Your task to perform on an android device: Search for the best rated running shoes on Nike.com Image 0: 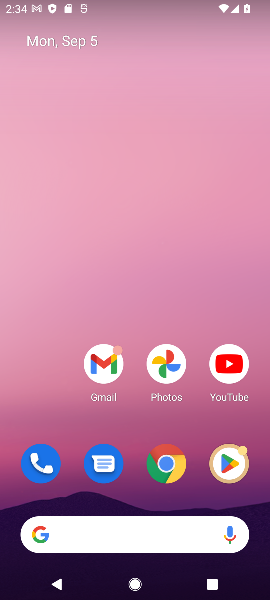
Step 0: drag from (116, 455) to (159, 104)
Your task to perform on an android device: Search for the best rated running shoes on Nike.com Image 1: 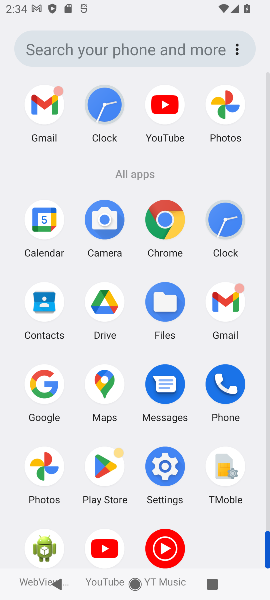
Step 1: click (37, 377)
Your task to perform on an android device: Search for the best rated running shoes on Nike.com Image 2: 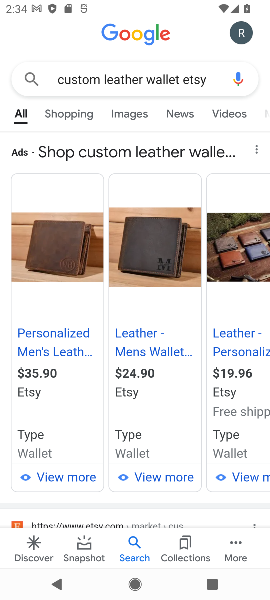
Step 2: click (215, 69)
Your task to perform on an android device: Search for the best rated running shoes on Nike.com Image 3: 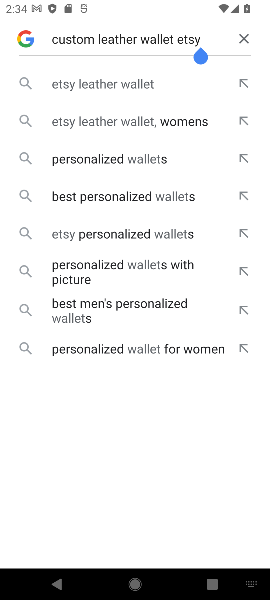
Step 3: click (240, 31)
Your task to perform on an android device: Search for the best rated running shoes on Nike.com Image 4: 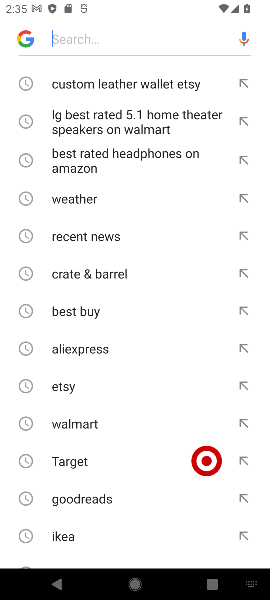
Step 4: click (112, 38)
Your task to perform on an android device: Search for the best rated running shoes on Nike.com Image 5: 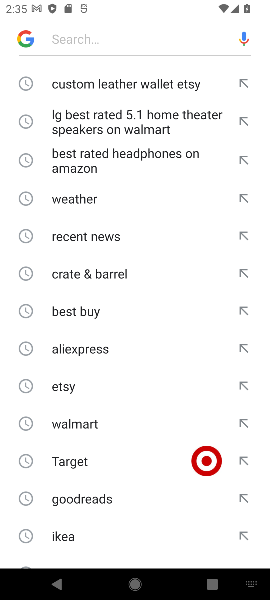
Step 5: type "best rated running shoes on Nike.com "
Your task to perform on an android device: Search for the best rated running shoes on Nike.com Image 6: 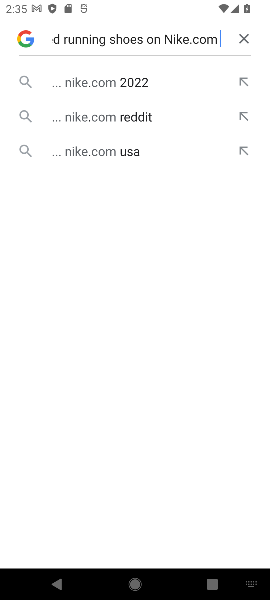
Step 6: click (92, 154)
Your task to perform on an android device: Search for the best rated running shoes on Nike.com Image 7: 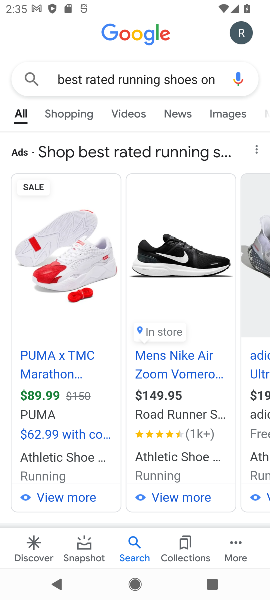
Step 7: drag from (76, 503) to (102, 160)
Your task to perform on an android device: Search for the best rated running shoes on Nike.com Image 8: 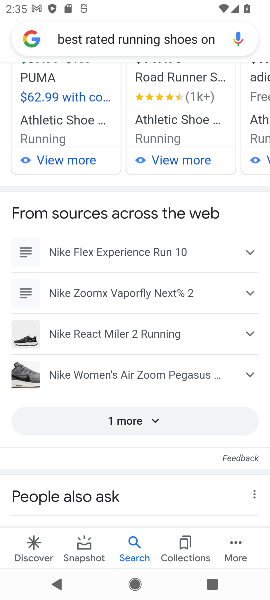
Step 8: drag from (76, 463) to (110, 225)
Your task to perform on an android device: Search for the best rated running shoes on Nike.com Image 9: 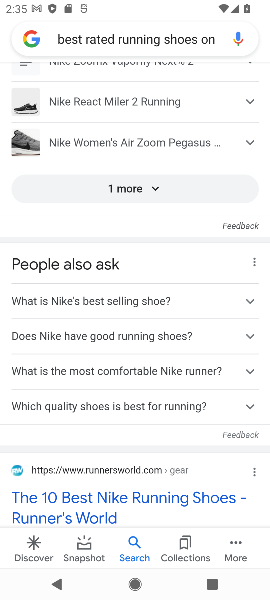
Step 9: drag from (95, 500) to (111, 176)
Your task to perform on an android device: Search for the best rated running shoes on Nike.com Image 10: 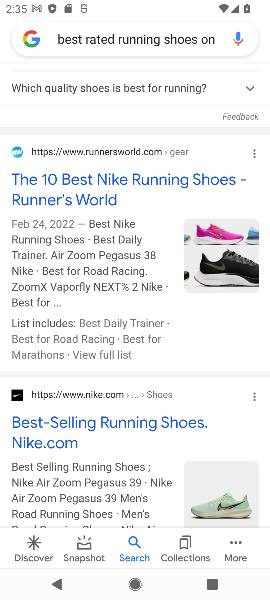
Step 10: drag from (122, 460) to (135, 150)
Your task to perform on an android device: Search for the best rated running shoes on Nike.com Image 11: 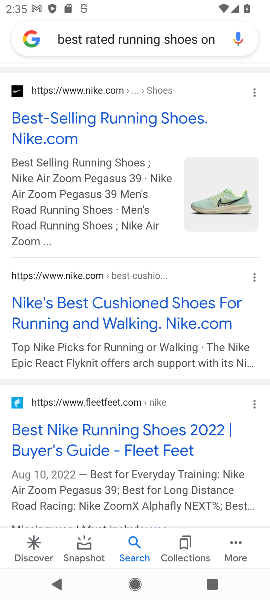
Step 11: drag from (141, 400) to (130, 465)
Your task to perform on an android device: Search for the best rated running shoes on Nike.com Image 12: 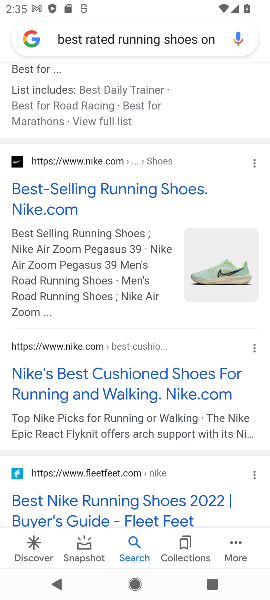
Step 12: drag from (78, 130) to (69, 531)
Your task to perform on an android device: Search for the best rated running shoes on Nike.com Image 13: 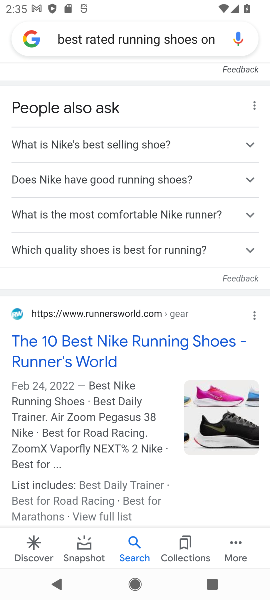
Step 13: drag from (56, 153) to (93, 529)
Your task to perform on an android device: Search for the best rated running shoes on Nike.com Image 14: 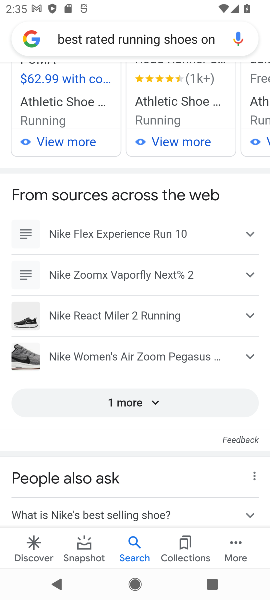
Step 14: drag from (78, 155) to (78, 407)
Your task to perform on an android device: Search for the best rated running shoes on Nike.com Image 15: 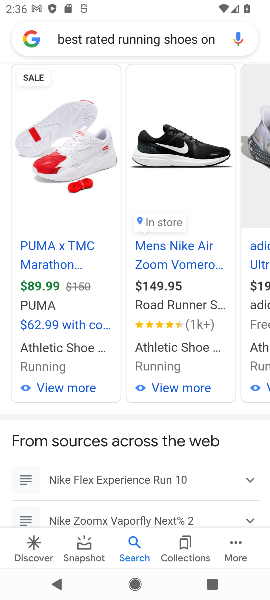
Step 15: drag from (143, 110) to (150, 525)
Your task to perform on an android device: Search for the best rated running shoes on Nike.com Image 16: 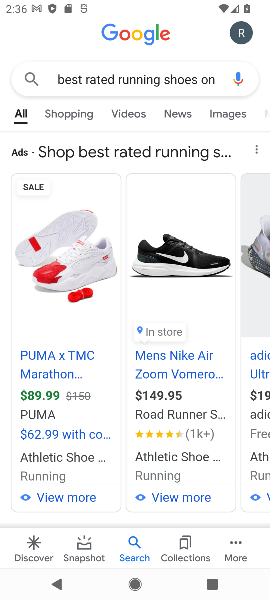
Step 16: drag from (91, 483) to (118, 174)
Your task to perform on an android device: Search for the best rated running shoes on Nike.com Image 17: 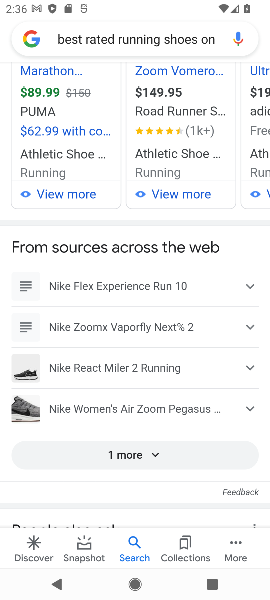
Step 17: drag from (108, 460) to (133, 176)
Your task to perform on an android device: Search for the best rated running shoes on Nike.com Image 18: 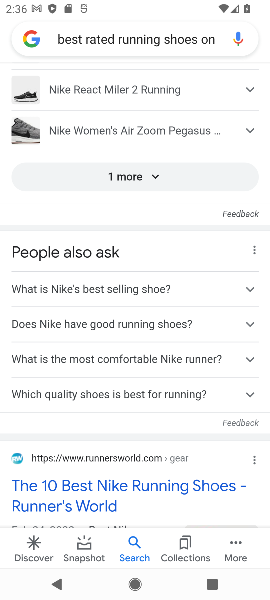
Step 18: drag from (133, 462) to (156, 216)
Your task to perform on an android device: Search for the best rated running shoes on Nike.com Image 19: 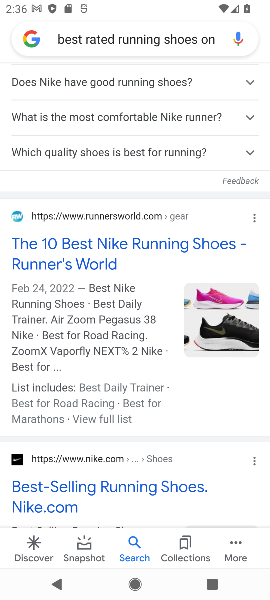
Step 19: click (126, 488)
Your task to perform on an android device: Search for the best rated running shoes on Nike.com Image 20: 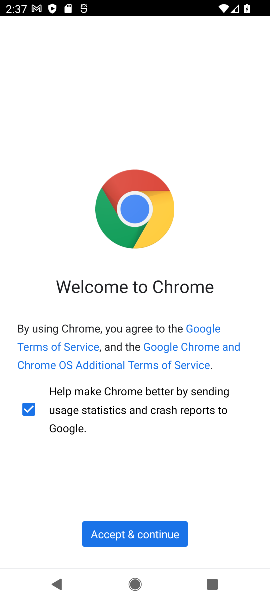
Step 20: click (134, 532)
Your task to perform on an android device: Search for the best rated running shoes on Nike.com Image 21: 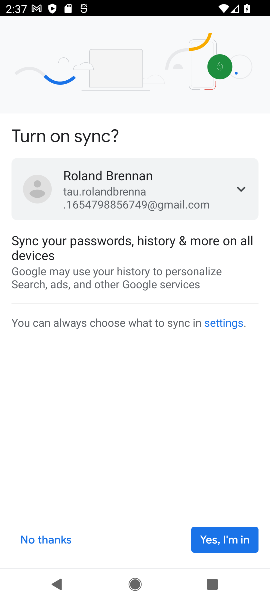
Step 21: click (44, 538)
Your task to perform on an android device: Search for the best rated running shoes on Nike.com Image 22: 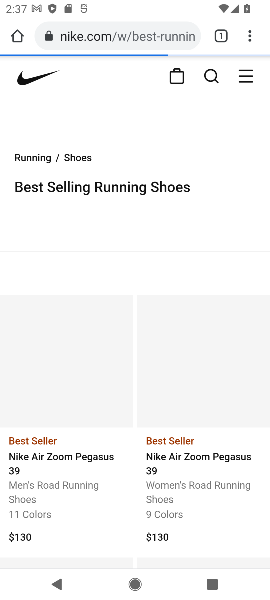
Step 22: task complete